Your task to perform on an android device: Is it going to rain tomorrow? Image 0: 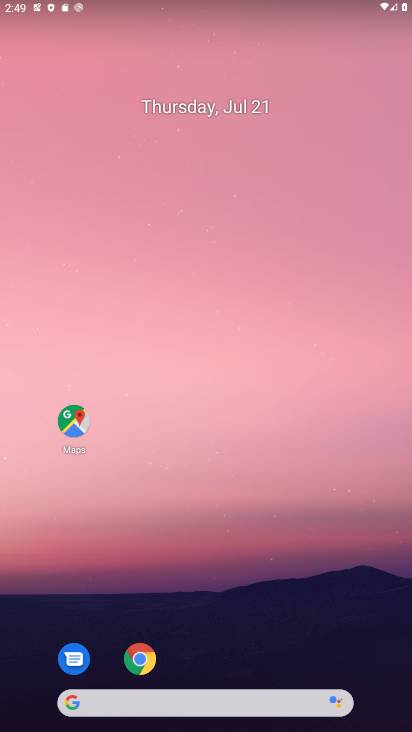
Step 0: drag from (231, 644) to (183, 132)
Your task to perform on an android device: Is it going to rain tomorrow? Image 1: 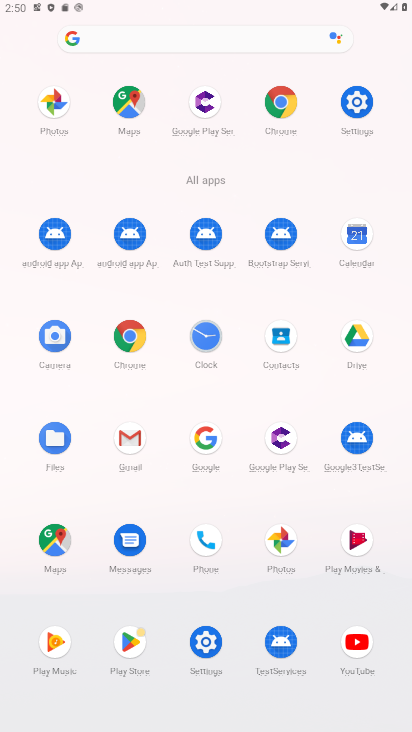
Step 1: click (292, 111)
Your task to perform on an android device: Is it going to rain tomorrow? Image 2: 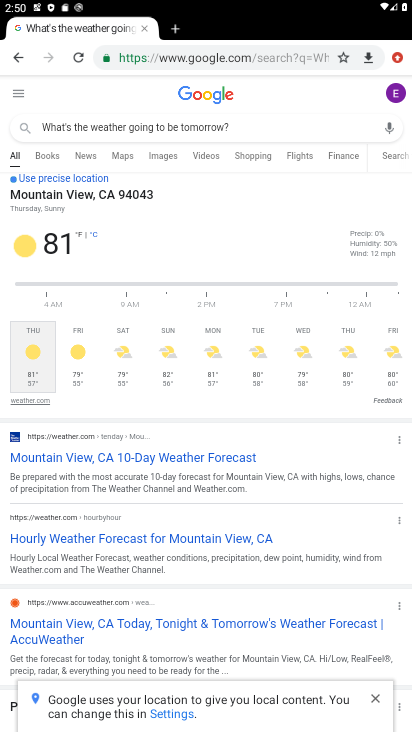
Step 2: click (287, 54)
Your task to perform on an android device: Is it going to rain tomorrow? Image 3: 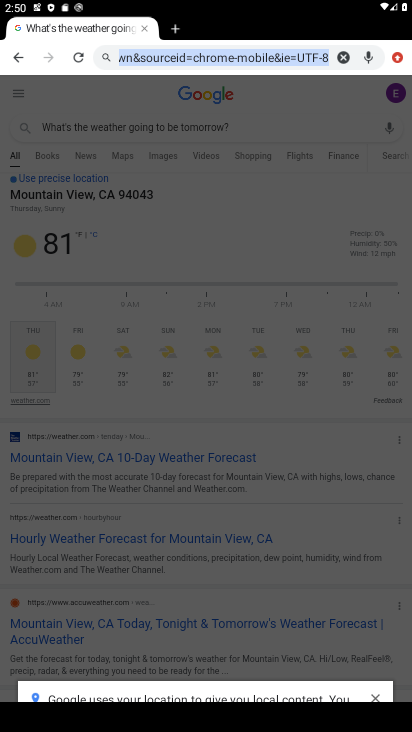
Step 3: type "Is it going to rain tomorrow?"
Your task to perform on an android device: Is it going to rain tomorrow? Image 4: 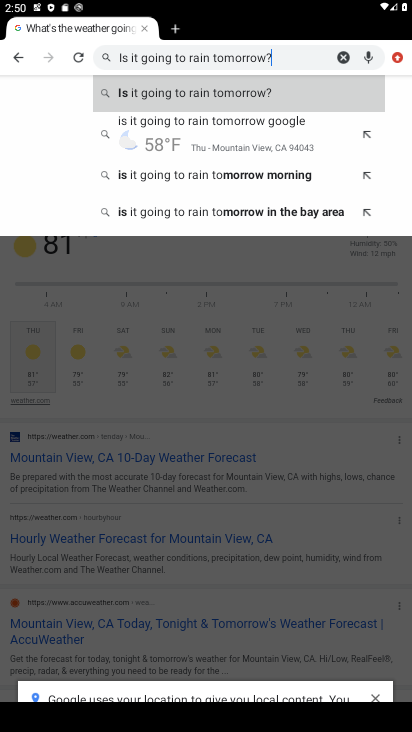
Step 4: click (263, 89)
Your task to perform on an android device: Is it going to rain tomorrow? Image 5: 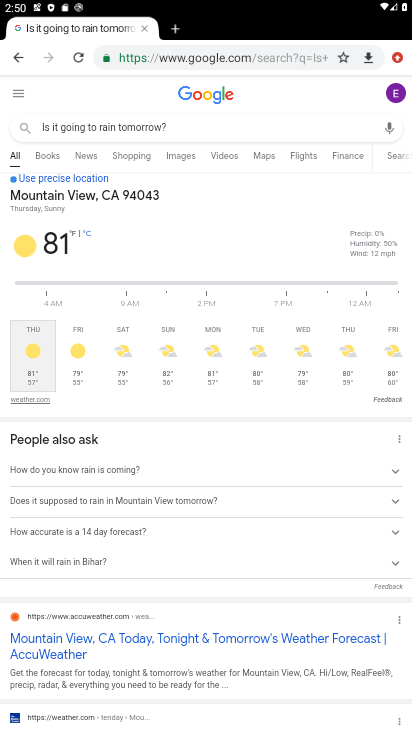
Step 5: task complete